Your task to perform on an android device: toggle pop-ups in chrome Image 0: 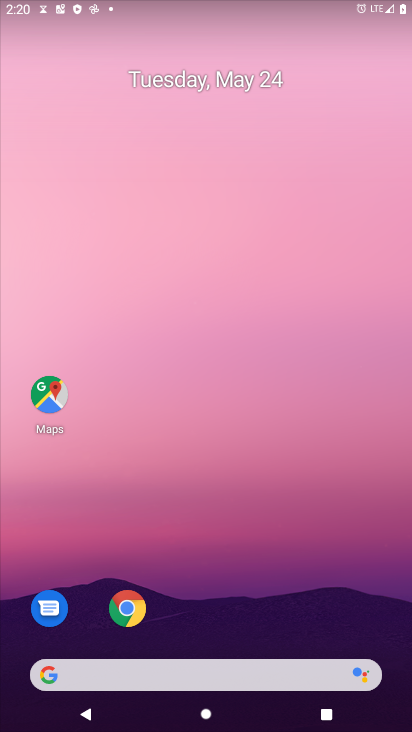
Step 0: drag from (252, 696) to (260, 147)
Your task to perform on an android device: toggle pop-ups in chrome Image 1: 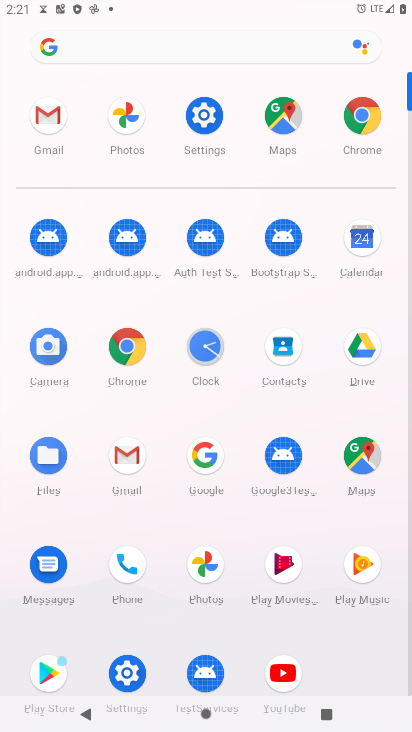
Step 1: click (349, 127)
Your task to perform on an android device: toggle pop-ups in chrome Image 2: 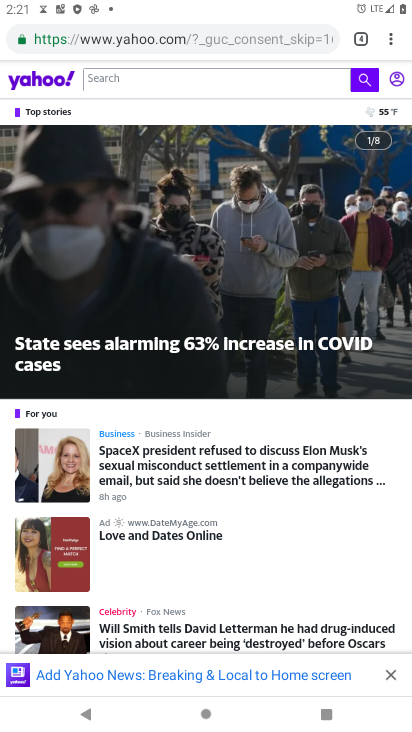
Step 2: click (391, 41)
Your task to perform on an android device: toggle pop-ups in chrome Image 3: 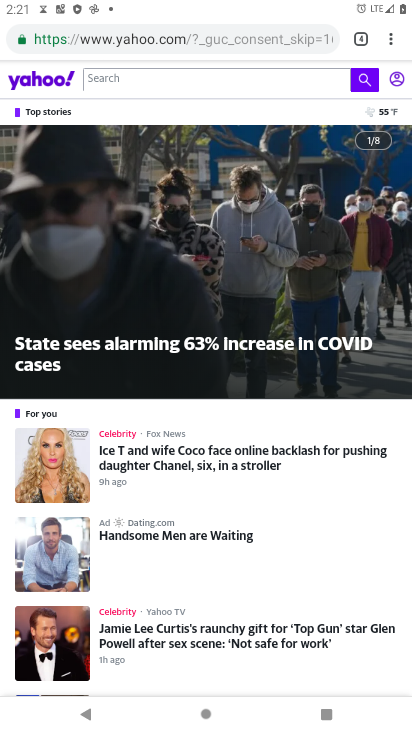
Step 3: click (380, 42)
Your task to perform on an android device: toggle pop-ups in chrome Image 4: 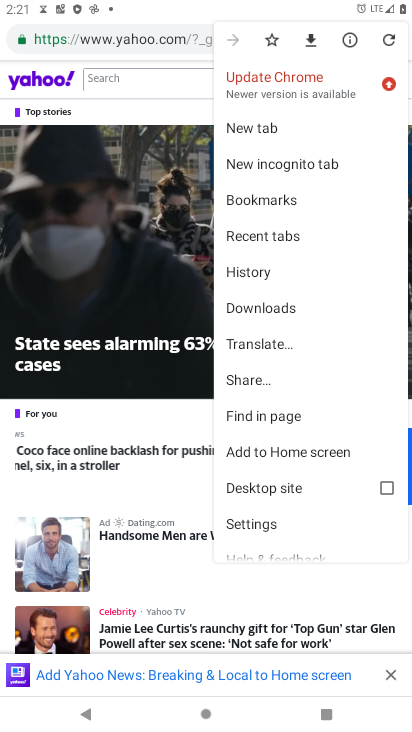
Step 4: click (251, 527)
Your task to perform on an android device: toggle pop-ups in chrome Image 5: 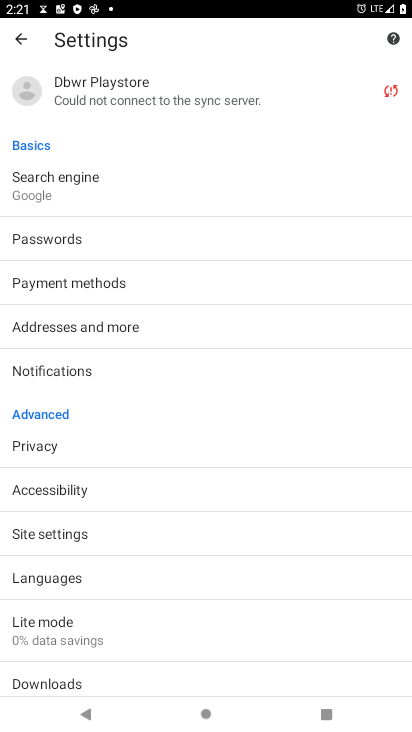
Step 5: click (108, 536)
Your task to perform on an android device: toggle pop-ups in chrome Image 6: 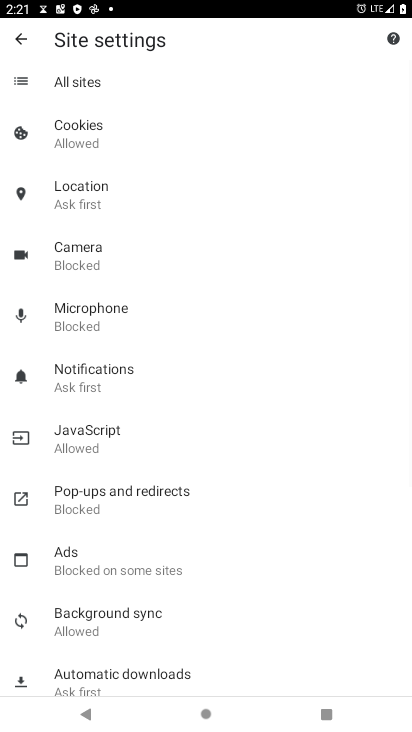
Step 6: click (93, 491)
Your task to perform on an android device: toggle pop-ups in chrome Image 7: 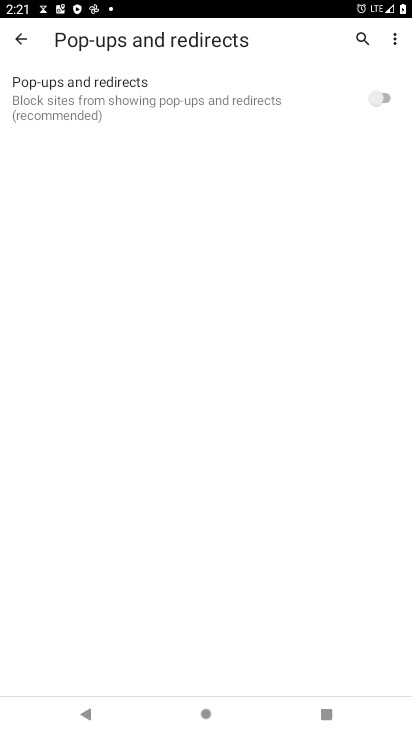
Step 7: task complete